Your task to perform on an android device: Search for Mexican restaurants on Maps Image 0: 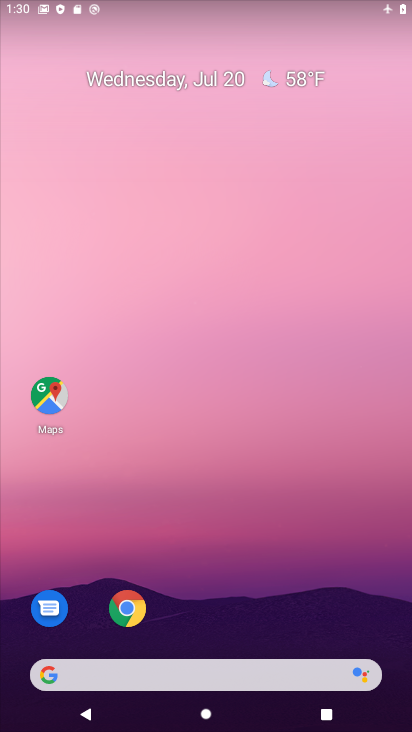
Step 0: drag from (233, 607) to (211, 47)
Your task to perform on an android device: Search for Mexican restaurants on Maps Image 1: 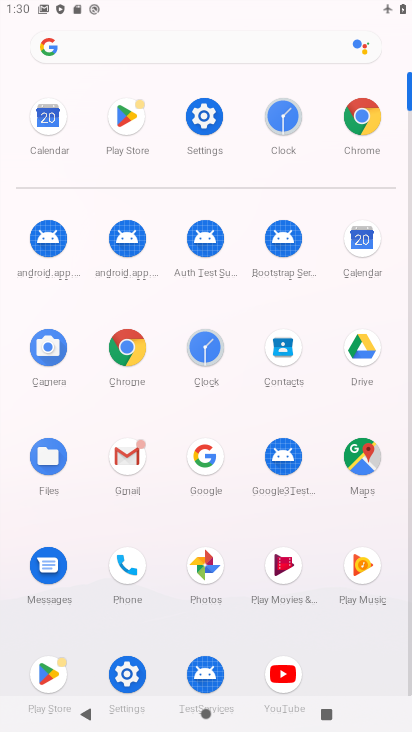
Step 1: click (362, 457)
Your task to perform on an android device: Search for Mexican restaurants on Maps Image 2: 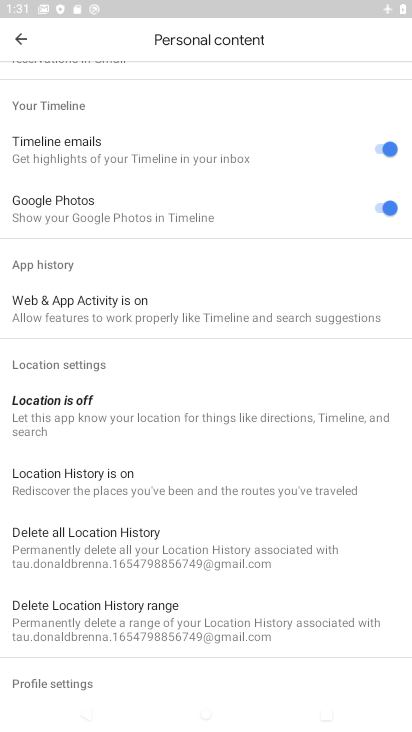
Step 2: click (19, 39)
Your task to perform on an android device: Search for Mexican restaurants on Maps Image 3: 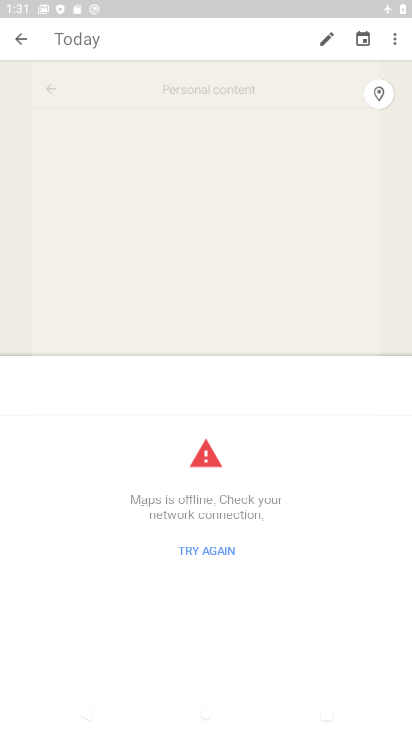
Step 3: click (21, 37)
Your task to perform on an android device: Search for Mexican restaurants on Maps Image 4: 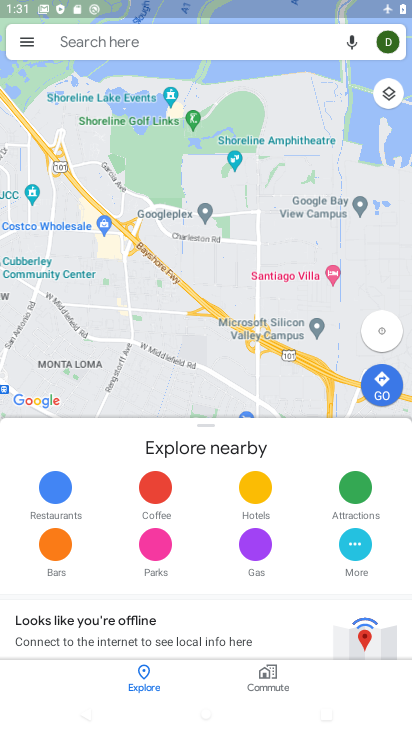
Step 4: click (20, 36)
Your task to perform on an android device: Search for Mexican restaurants on Maps Image 5: 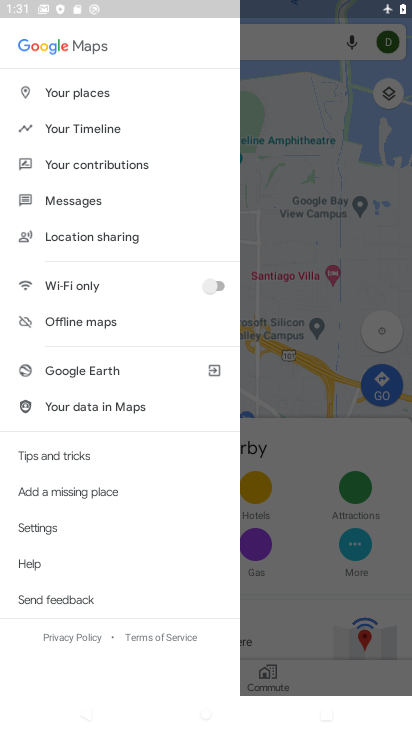
Step 5: click (291, 45)
Your task to perform on an android device: Search for Mexican restaurants on Maps Image 6: 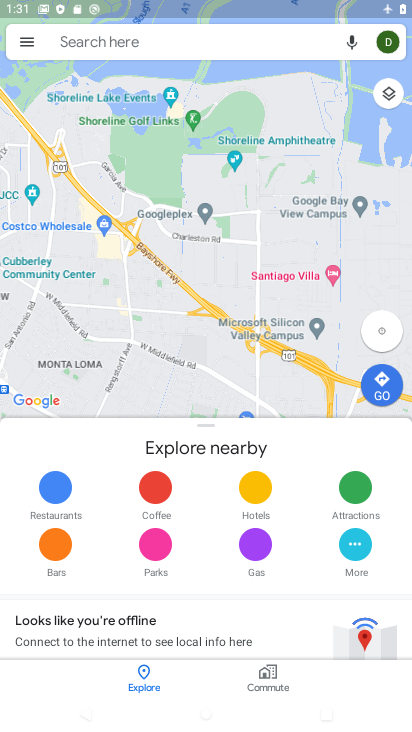
Step 6: click (291, 45)
Your task to perform on an android device: Search for Mexican restaurants on Maps Image 7: 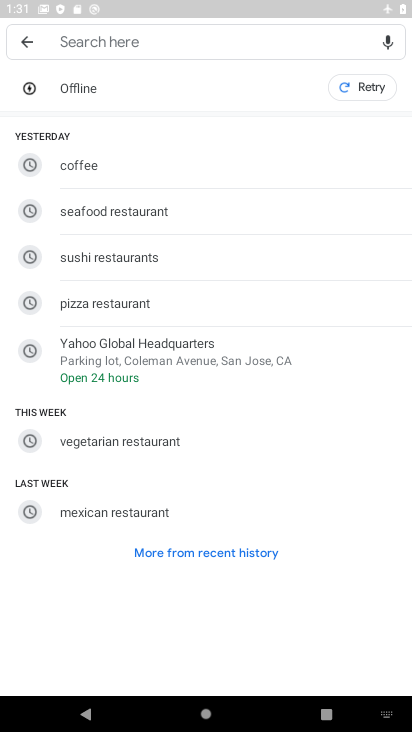
Step 7: type "Mexican restaurants"
Your task to perform on an android device: Search for Mexican restaurants on Maps Image 8: 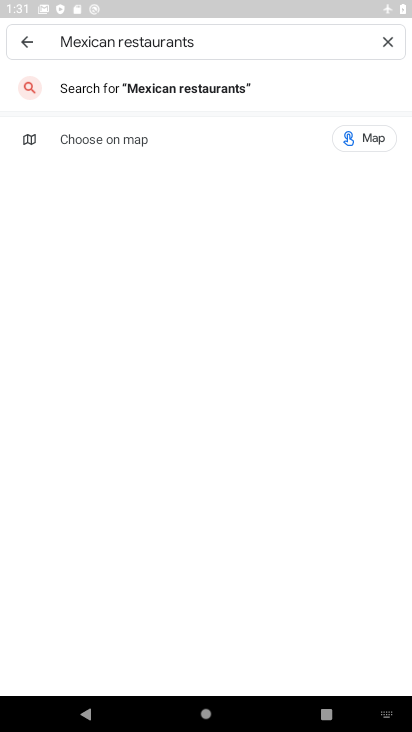
Step 8: click (189, 91)
Your task to perform on an android device: Search for Mexican restaurants on Maps Image 9: 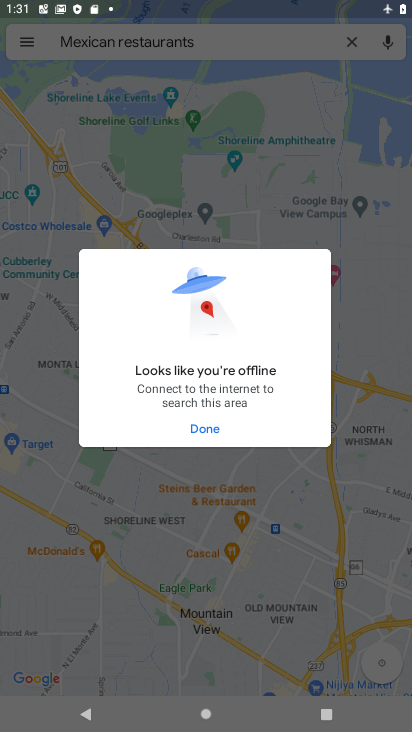
Step 9: task complete